Your task to perform on an android device: open a bookmark in the chrome app Image 0: 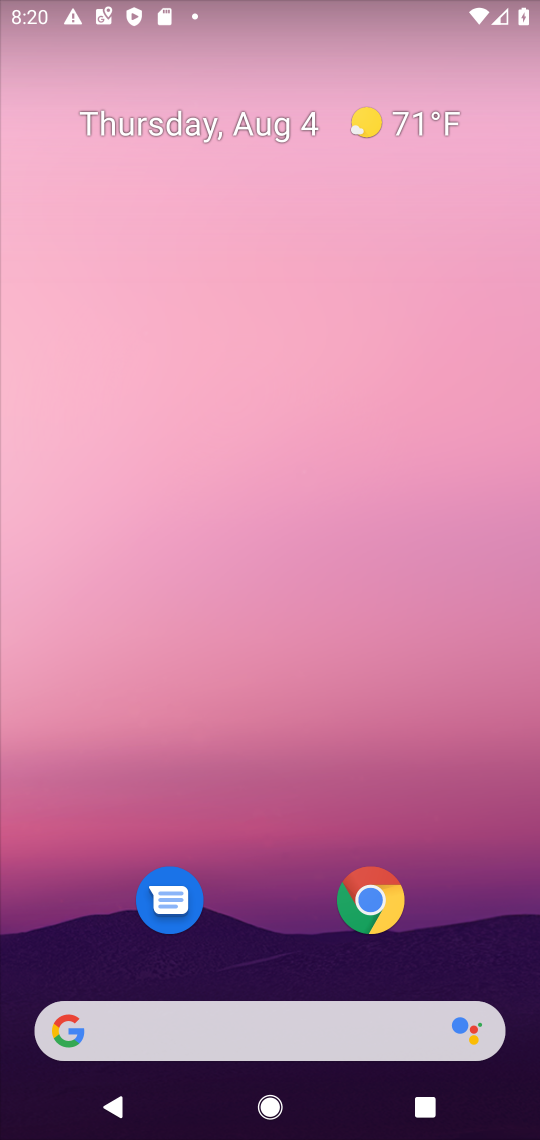
Step 0: click (371, 905)
Your task to perform on an android device: open a bookmark in the chrome app Image 1: 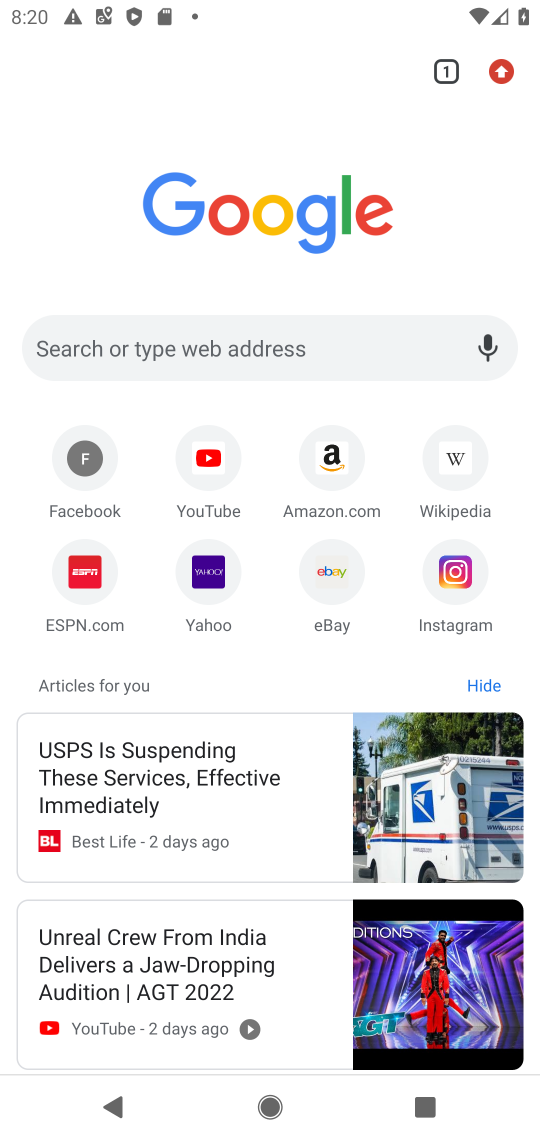
Step 1: click (498, 71)
Your task to perform on an android device: open a bookmark in the chrome app Image 2: 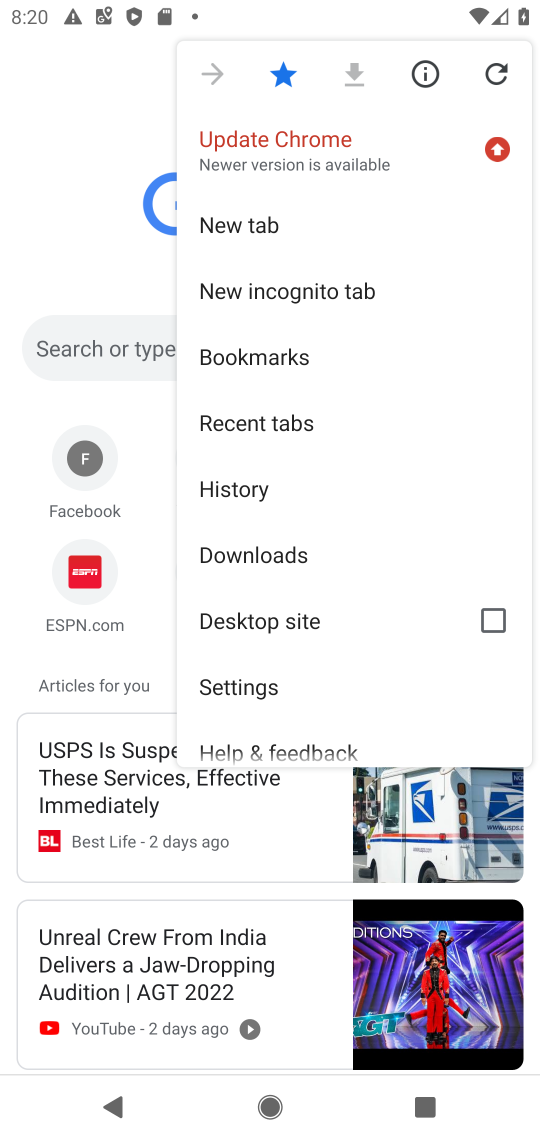
Step 2: click (237, 363)
Your task to perform on an android device: open a bookmark in the chrome app Image 3: 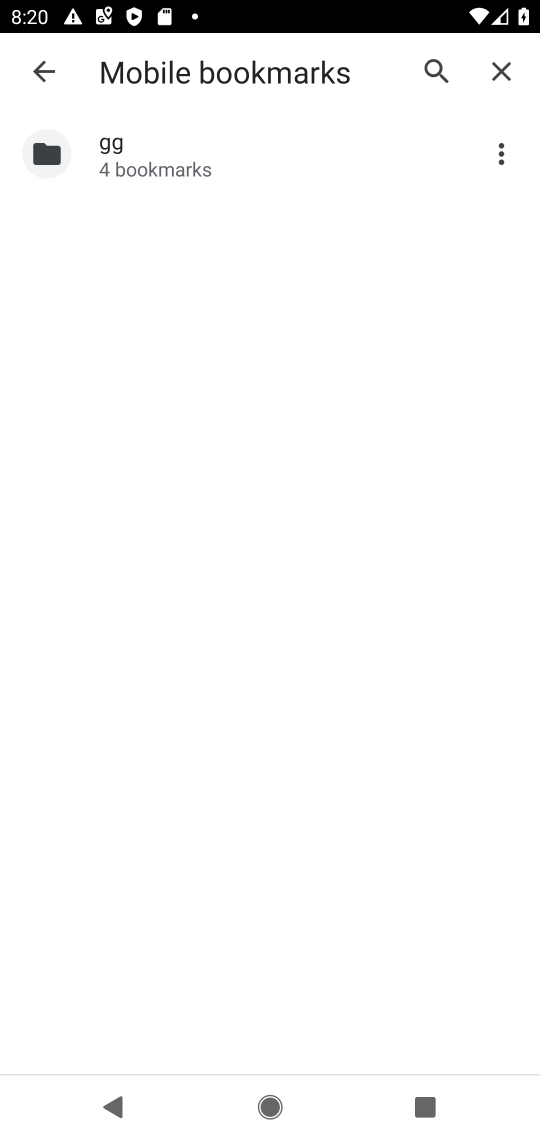
Step 3: click (140, 173)
Your task to perform on an android device: open a bookmark in the chrome app Image 4: 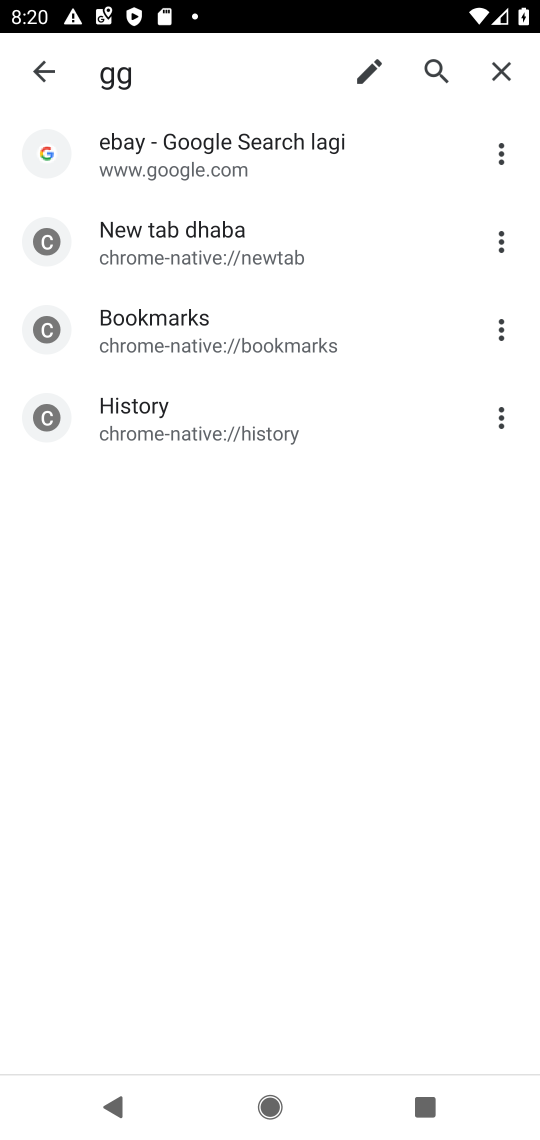
Step 4: click (130, 138)
Your task to perform on an android device: open a bookmark in the chrome app Image 5: 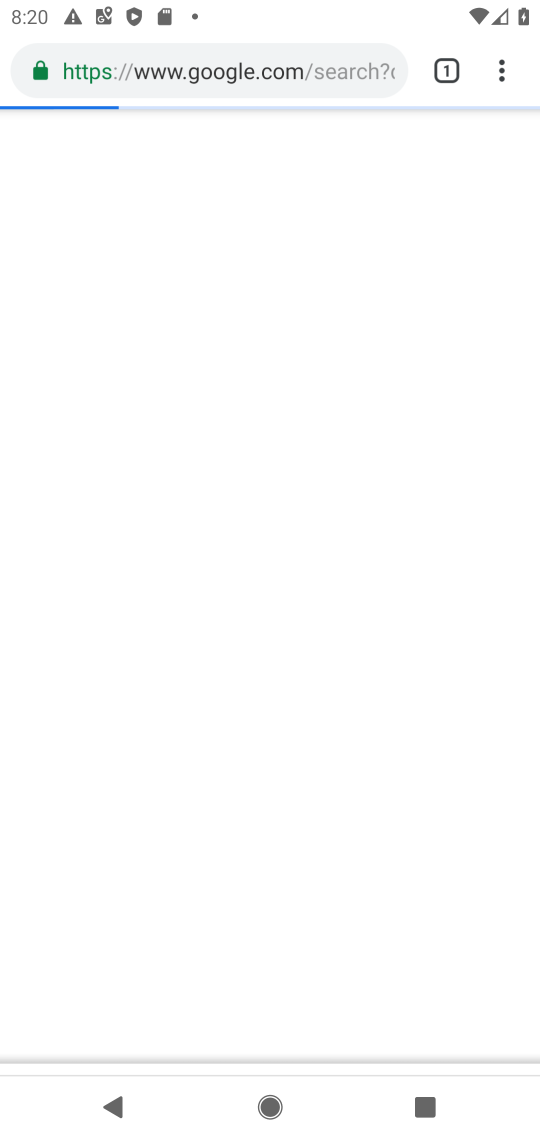
Step 5: click (130, 138)
Your task to perform on an android device: open a bookmark in the chrome app Image 6: 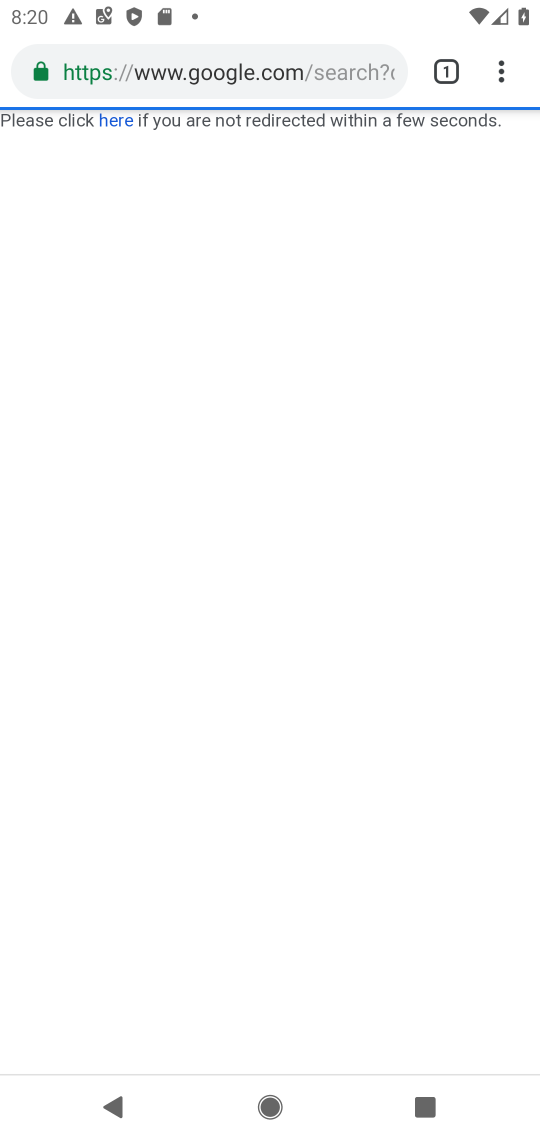
Step 6: click (130, 138)
Your task to perform on an android device: open a bookmark in the chrome app Image 7: 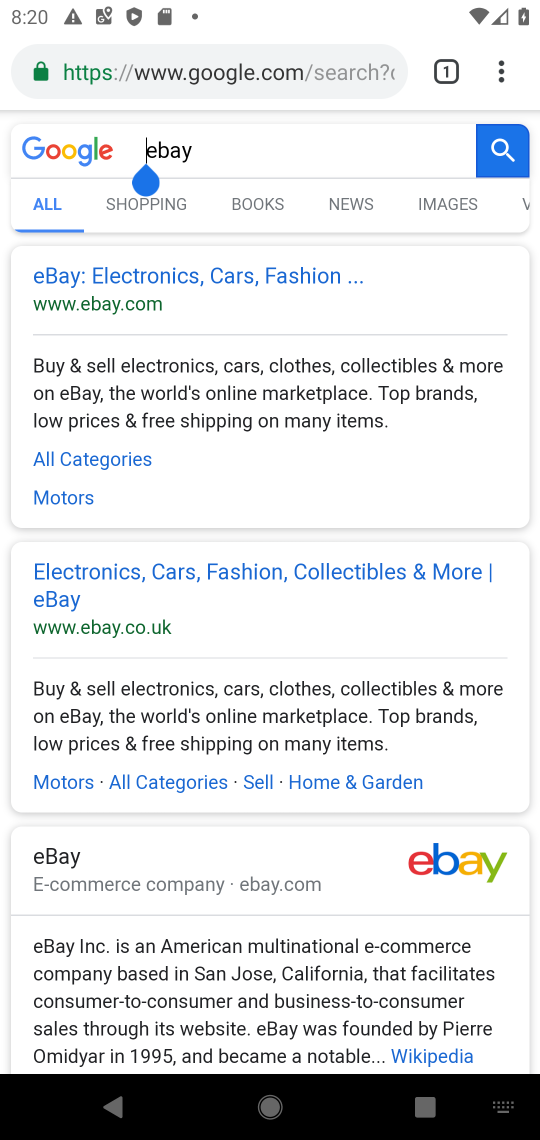
Step 7: click (130, 138)
Your task to perform on an android device: open a bookmark in the chrome app Image 8: 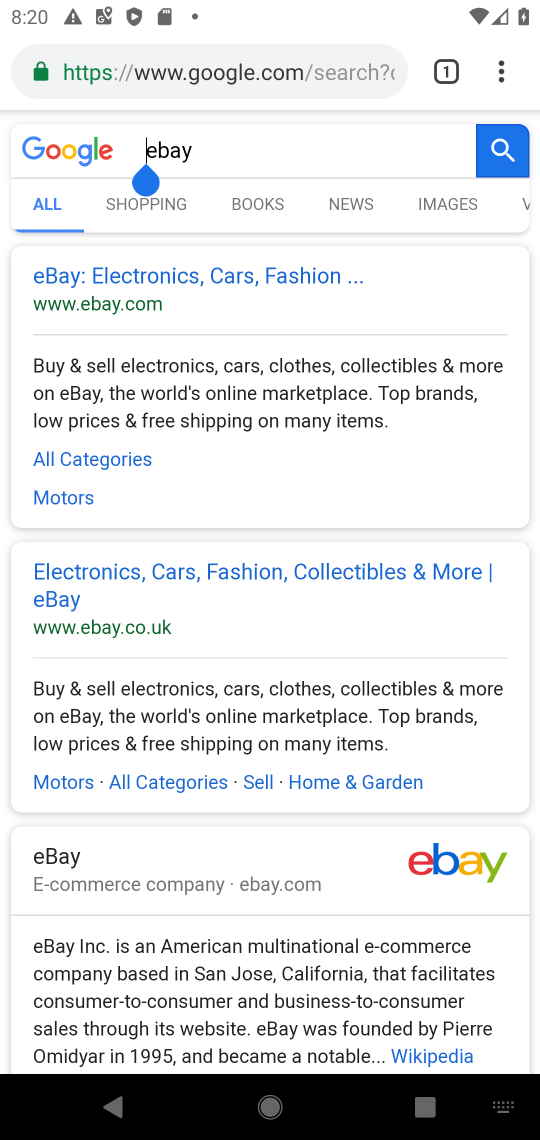
Step 8: task complete